Your task to perform on an android device: make emails show in primary in the gmail app Image 0: 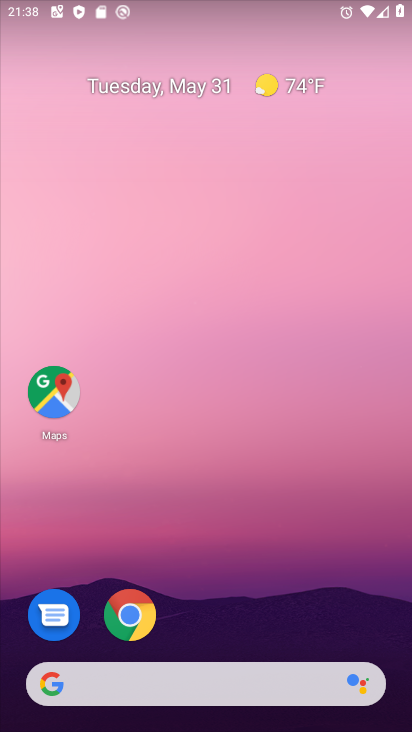
Step 0: drag from (217, 626) to (226, 227)
Your task to perform on an android device: make emails show in primary in the gmail app Image 1: 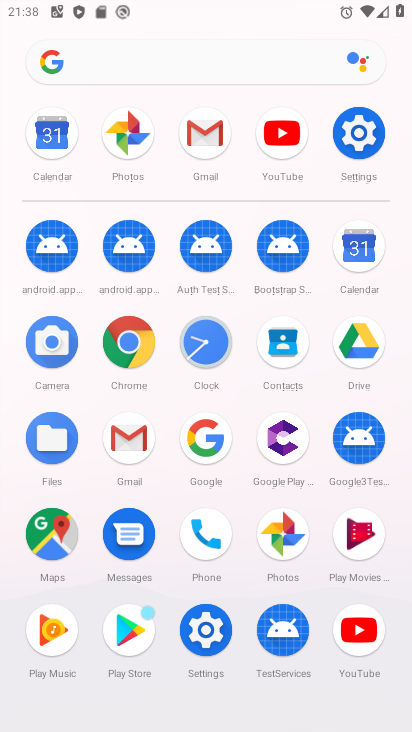
Step 1: click (226, 134)
Your task to perform on an android device: make emails show in primary in the gmail app Image 2: 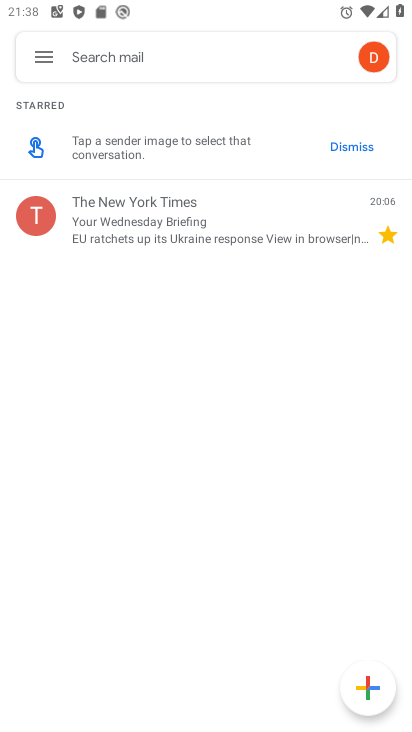
Step 2: click (40, 57)
Your task to perform on an android device: make emails show in primary in the gmail app Image 3: 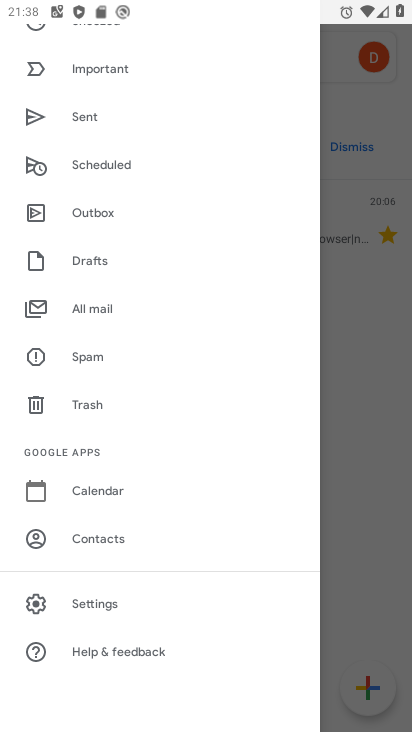
Step 3: click (110, 589)
Your task to perform on an android device: make emails show in primary in the gmail app Image 4: 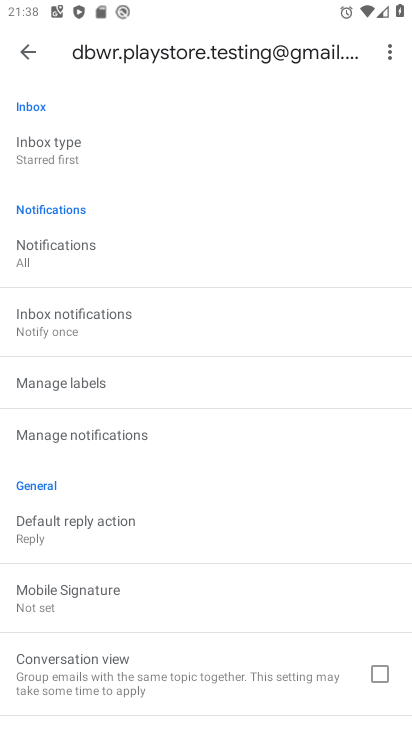
Step 4: drag from (160, 582) to (198, 178)
Your task to perform on an android device: make emails show in primary in the gmail app Image 5: 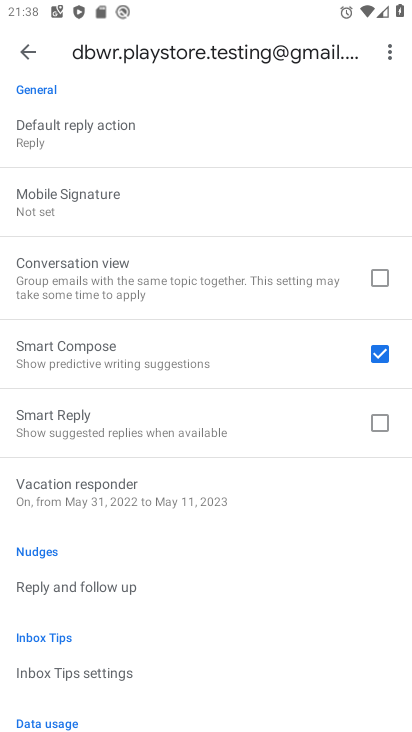
Step 5: drag from (160, 599) to (171, 322)
Your task to perform on an android device: make emails show in primary in the gmail app Image 6: 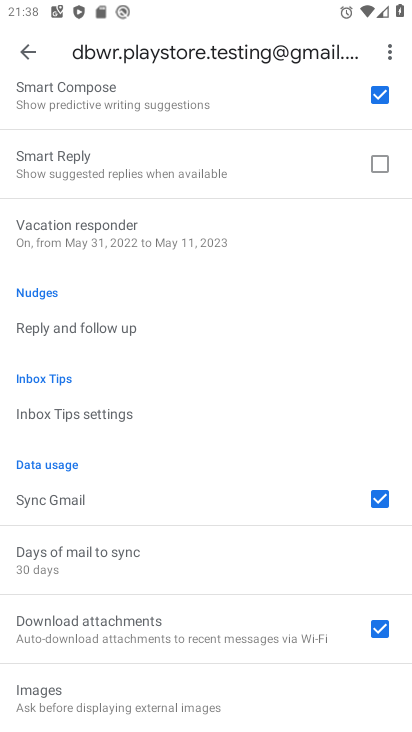
Step 6: drag from (174, 584) to (194, 274)
Your task to perform on an android device: make emails show in primary in the gmail app Image 7: 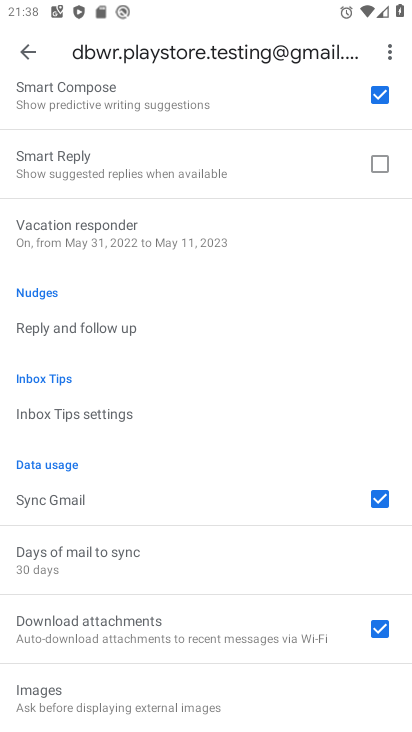
Step 7: drag from (194, 274) to (194, 521)
Your task to perform on an android device: make emails show in primary in the gmail app Image 8: 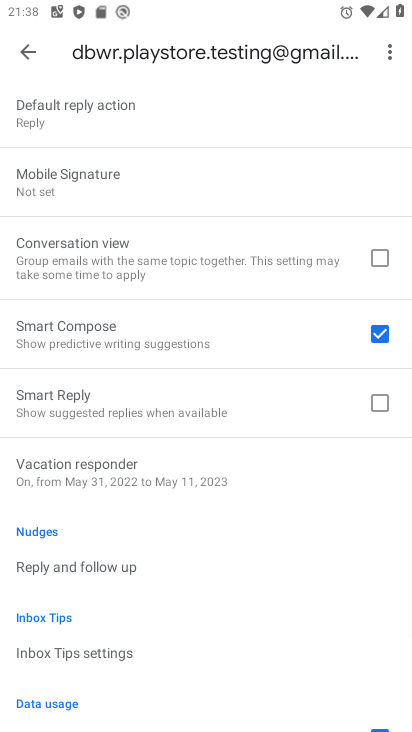
Step 8: drag from (188, 245) to (175, 504)
Your task to perform on an android device: make emails show in primary in the gmail app Image 9: 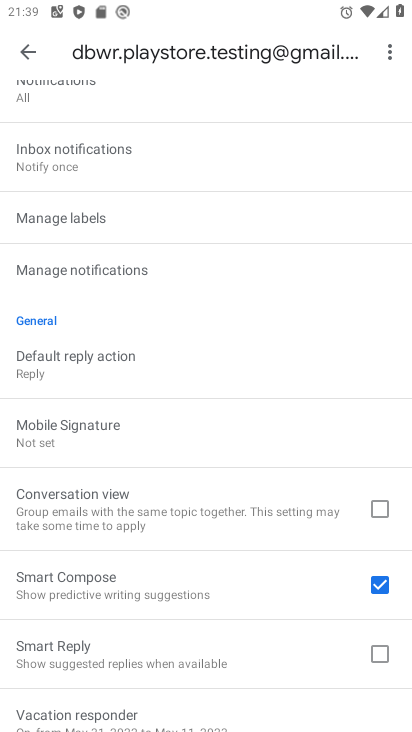
Step 9: drag from (193, 241) to (212, 498)
Your task to perform on an android device: make emails show in primary in the gmail app Image 10: 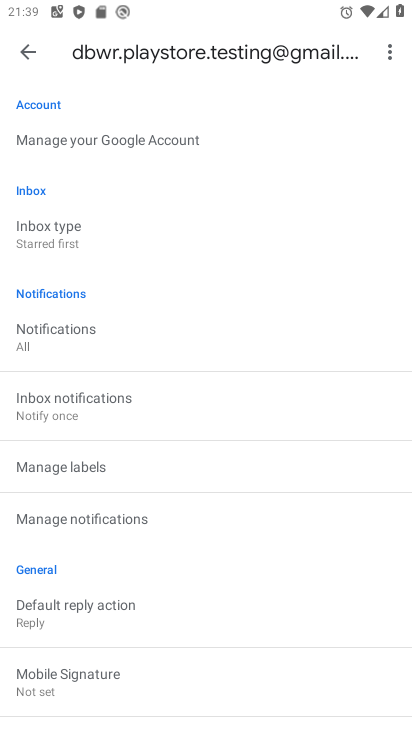
Step 10: click (144, 231)
Your task to perform on an android device: make emails show in primary in the gmail app Image 11: 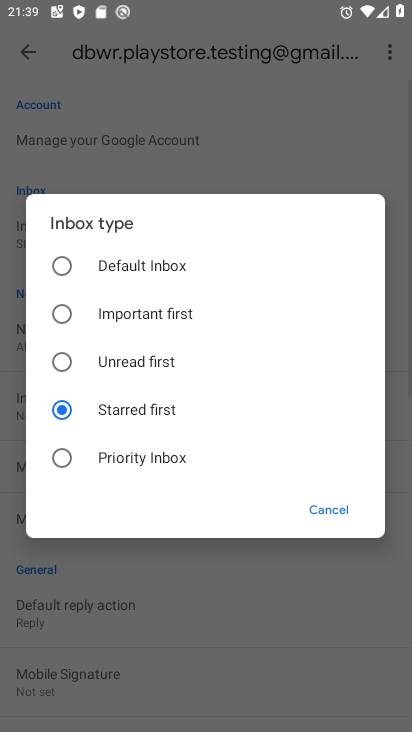
Step 11: click (144, 248)
Your task to perform on an android device: make emails show in primary in the gmail app Image 12: 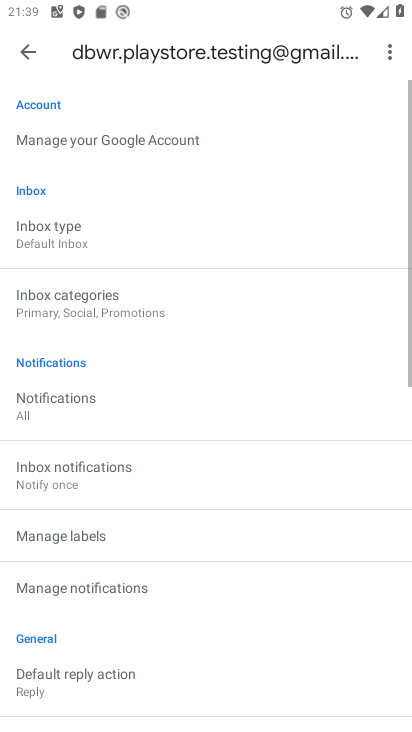
Step 12: click (126, 306)
Your task to perform on an android device: make emails show in primary in the gmail app Image 13: 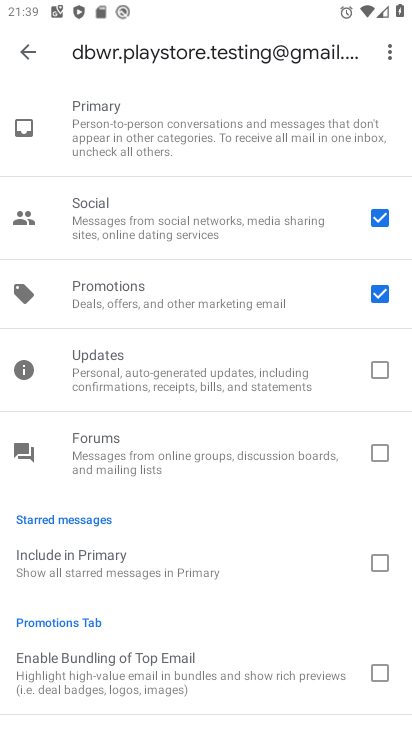
Step 13: task complete